Your task to perform on an android device: Open Google Chrome and click the shortcut for Amazon.com Image 0: 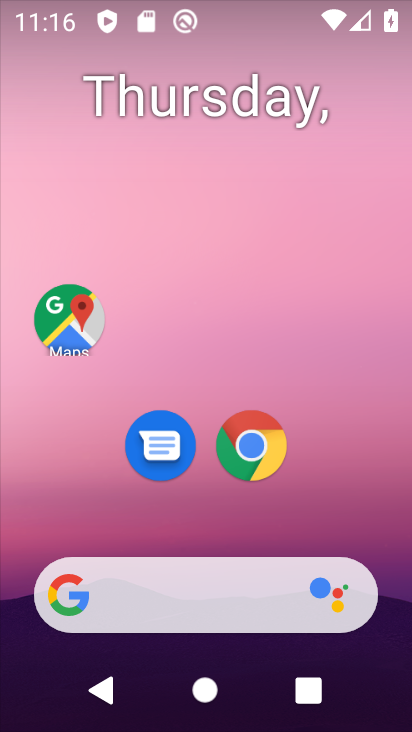
Step 0: drag from (139, 549) to (265, 75)
Your task to perform on an android device: Open Google Chrome and click the shortcut for Amazon.com Image 1: 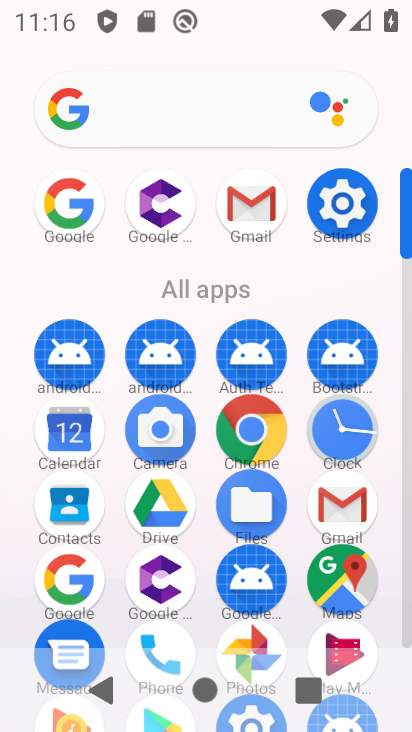
Step 1: click (251, 412)
Your task to perform on an android device: Open Google Chrome and click the shortcut for Amazon.com Image 2: 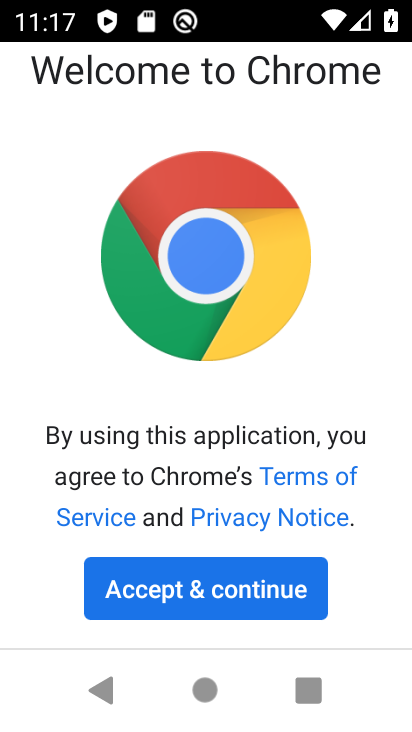
Step 2: click (207, 576)
Your task to perform on an android device: Open Google Chrome and click the shortcut for Amazon.com Image 3: 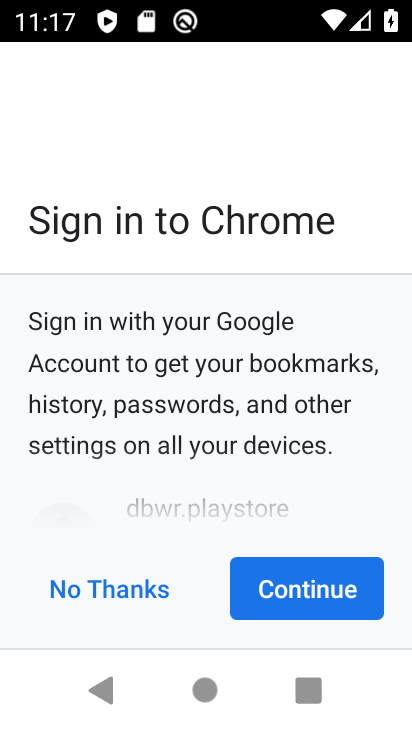
Step 3: click (298, 594)
Your task to perform on an android device: Open Google Chrome and click the shortcut for Amazon.com Image 4: 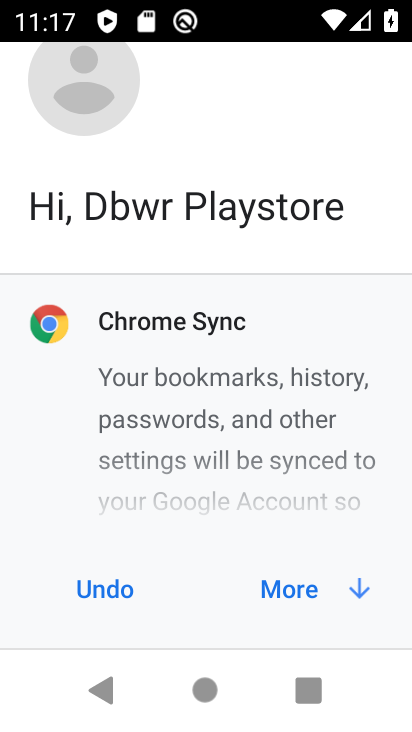
Step 4: click (298, 593)
Your task to perform on an android device: Open Google Chrome and click the shortcut for Amazon.com Image 5: 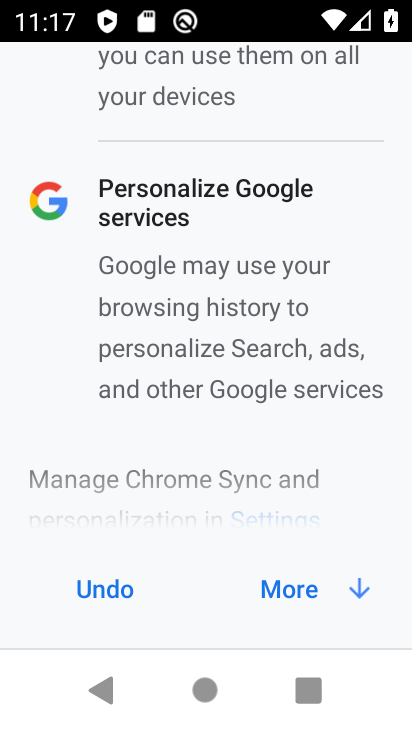
Step 5: click (298, 593)
Your task to perform on an android device: Open Google Chrome and click the shortcut for Amazon.com Image 6: 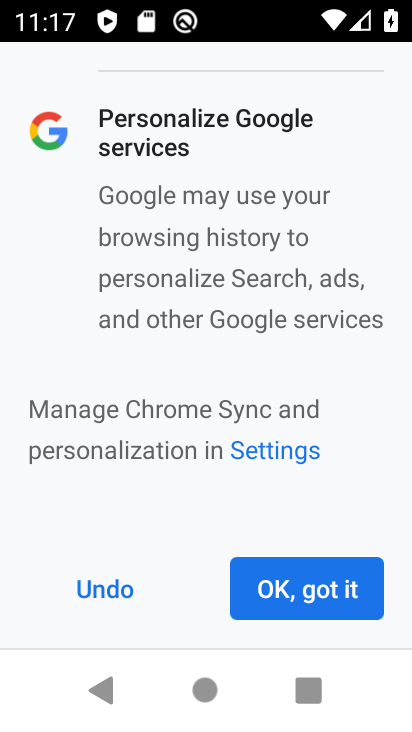
Step 6: click (298, 593)
Your task to perform on an android device: Open Google Chrome and click the shortcut for Amazon.com Image 7: 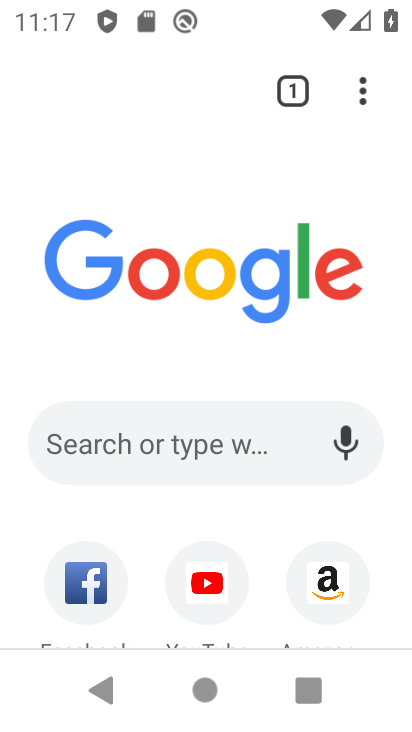
Step 7: drag from (298, 593) to (373, 140)
Your task to perform on an android device: Open Google Chrome and click the shortcut for Amazon.com Image 8: 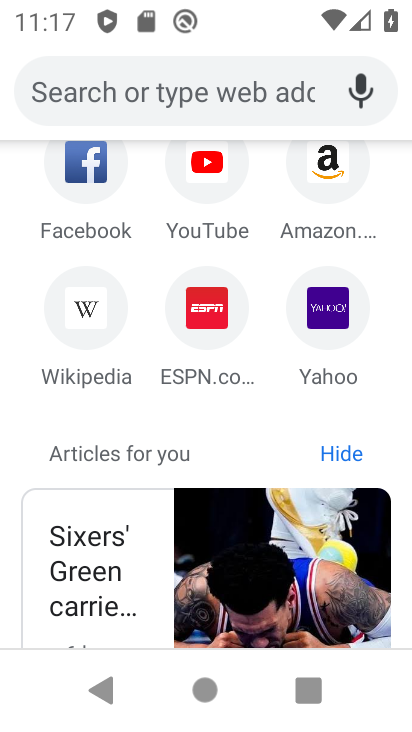
Step 8: click (337, 186)
Your task to perform on an android device: Open Google Chrome and click the shortcut for Amazon.com Image 9: 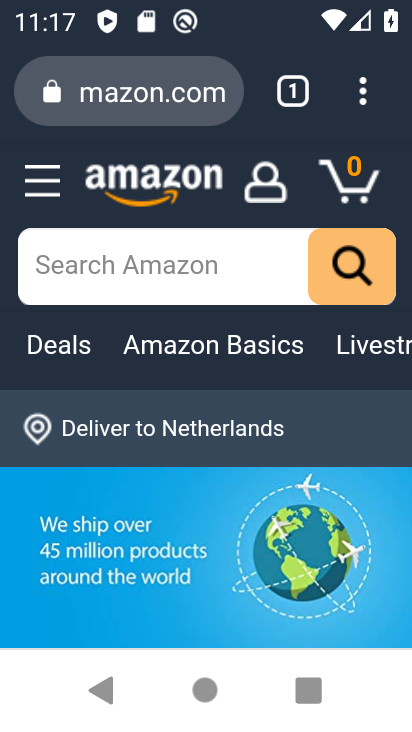
Step 9: task complete